Your task to perform on an android device: turn on javascript in the chrome app Image 0: 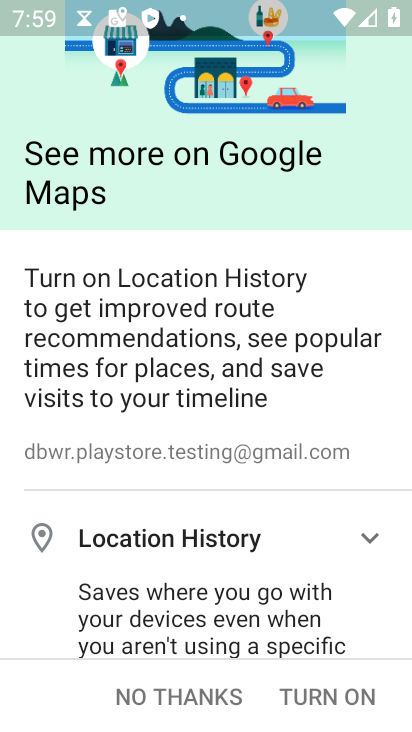
Step 0: press back button
Your task to perform on an android device: turn on javascript in the chrome app Image 1: 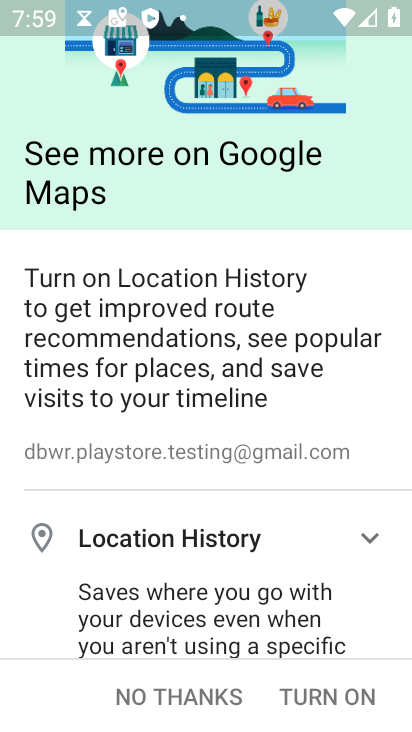
Step 1: press back button
Your task to perform on an android device: turn on javascript in the chrome app Image 2: 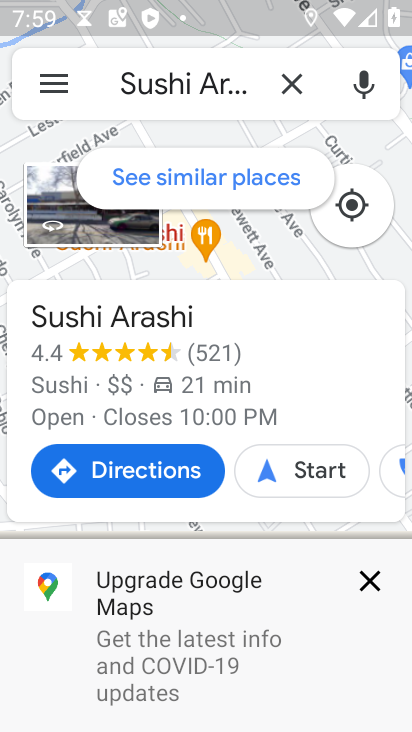
Step 2: press back button
Your task to perform on an android device: turn on javascript in the chrome app Image 3: 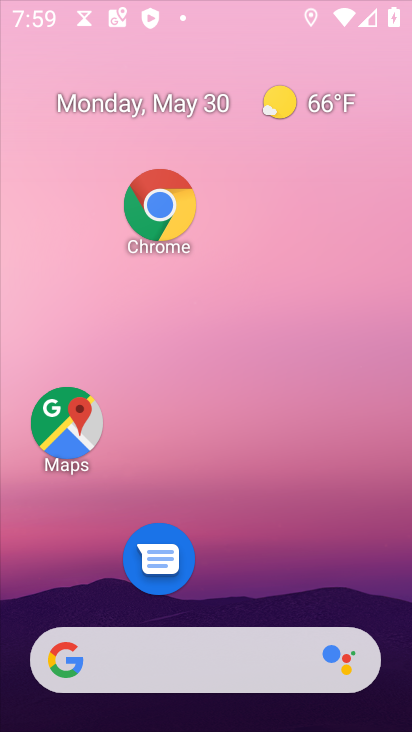
Step 3: press home button
Your task to perform on an android device: turn on javascript in the chrome app Image 4: 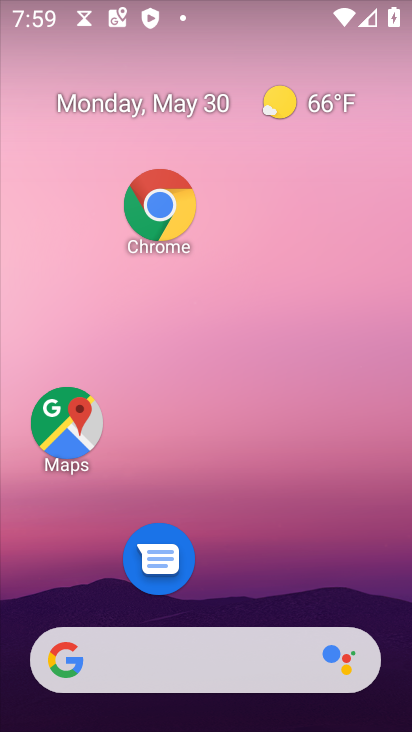
Step 4: press home button
Your task to perform on an android device: turn on javascript in the chrome app Image 5: 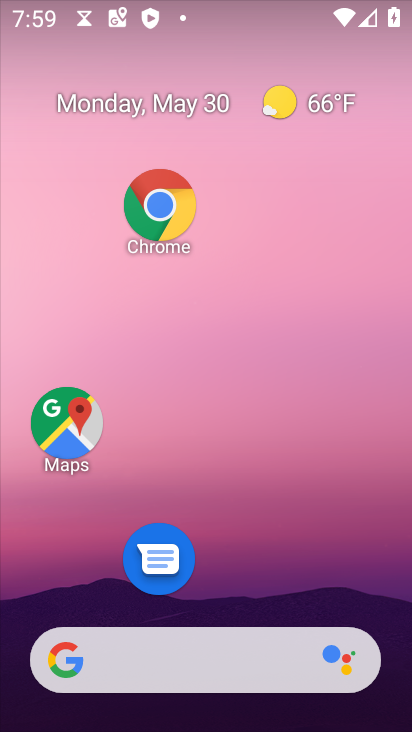
Step 5: click (164, 68)
Your task to perform on an android device: turn on javascript in the chrome app Image 6: 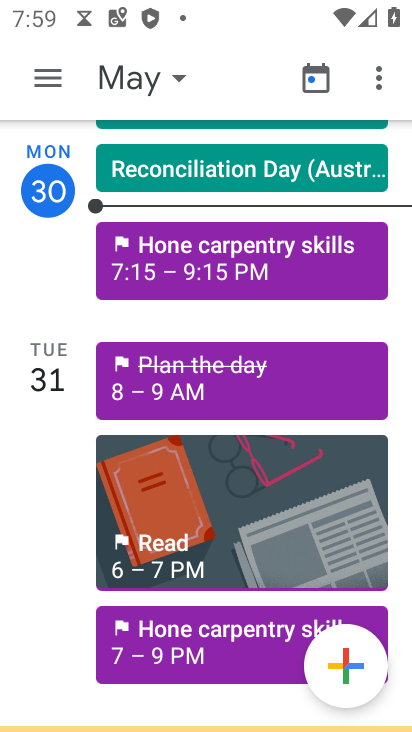
Step 6: press back button
Your task to perform on an android device: turn on javascript in the chrome app Image 7: 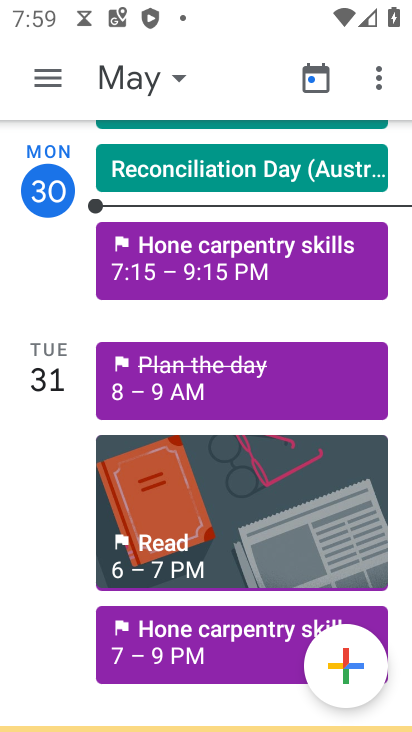
Step 7: press back button
Your task to perform on an android device: turn on javascript in the chrome app Image 8: 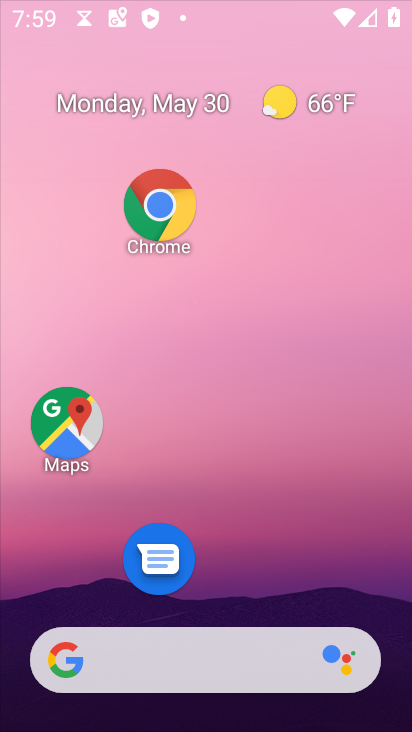
Step 8: press back button
Your task to perform on an android device: turn on javascript in the chrome app Image 9: 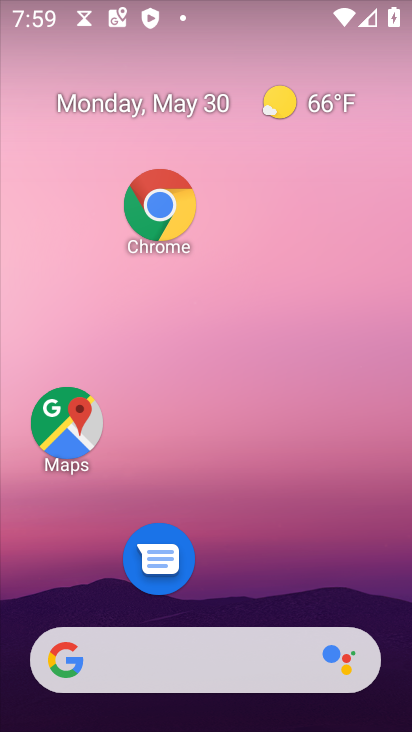
Step 9: drag from (288, 703) to (206, 119)
Your task to perform on an android device: turn on javascript in the chrome app Image 10: 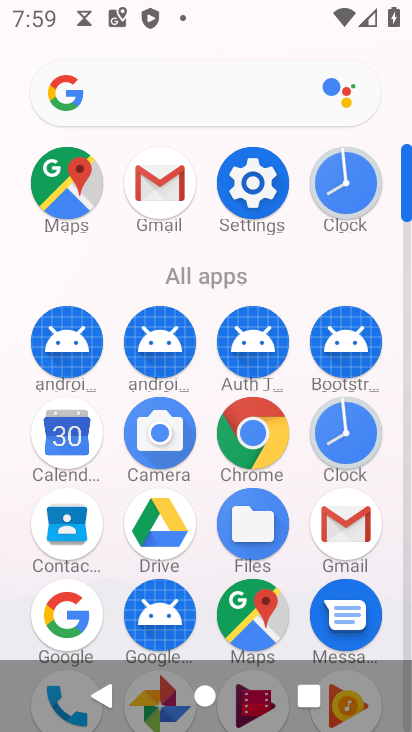
Step 10: click (255, 432)
Your task to perform on an android device: turn on javascript in the chrome app Image 11: 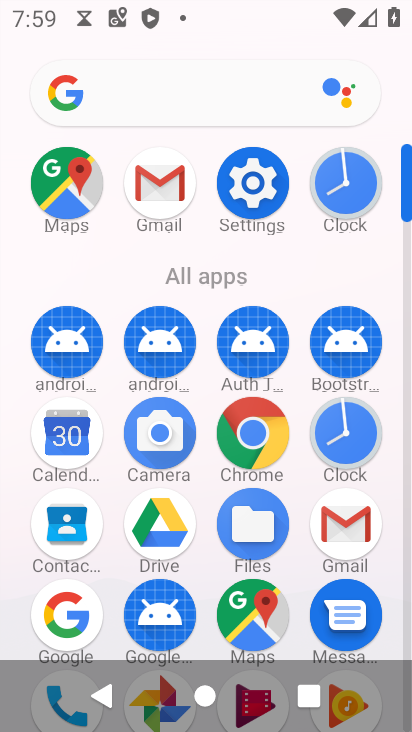
Step 11: click (255, 432)
Your task to perform on an android device: turn on javascript in the chrome app Image 12: 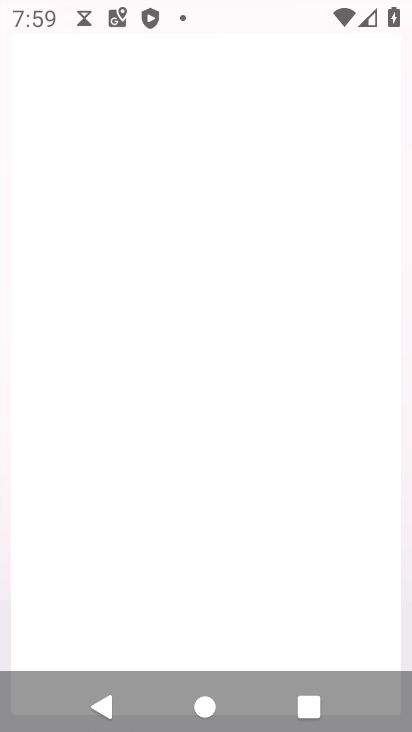
Step 12: click (254, 437)
Your task to perform on an android device: turn on javascript in the chrome app Image 13: 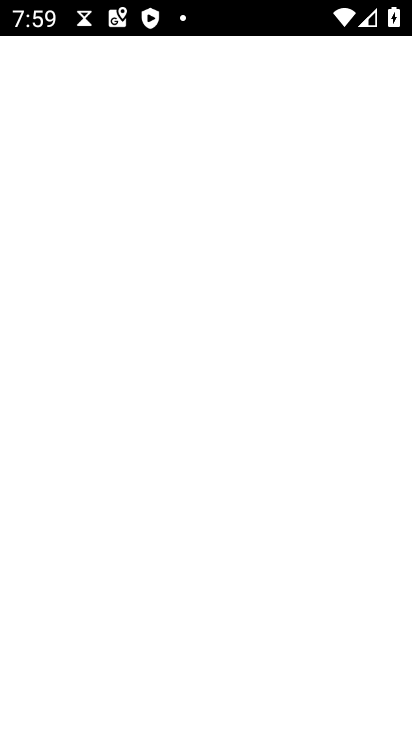
Step 13: click (254, 437)
Your task to perform on an android device: turn on javascript in the chrome app Image 14: 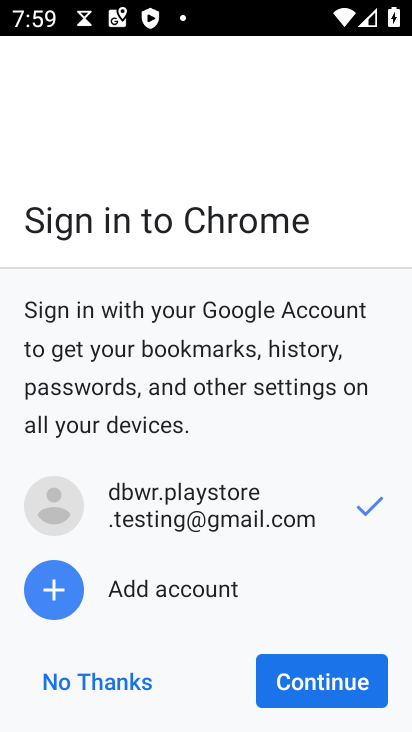
Step 14: click (333, 683)
Your task to perform on an android device: turn on javascript in the chrome app Image 15: 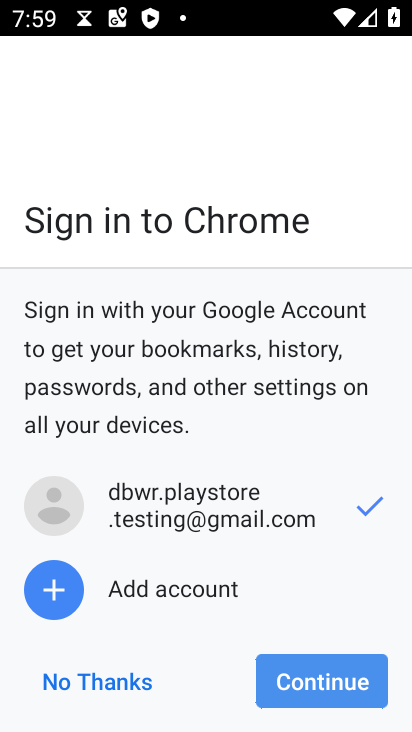
Step 15: click (333, 683)
Your task to perform on an android device: turn on javascript in the chrome app Image 16: 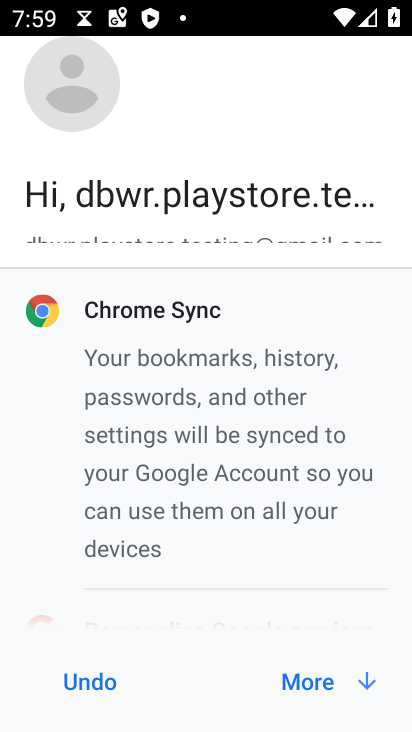
Step 16: click (343, 690)
Your task to perform on an android device: turn on javascript in the chrome app Image 17: 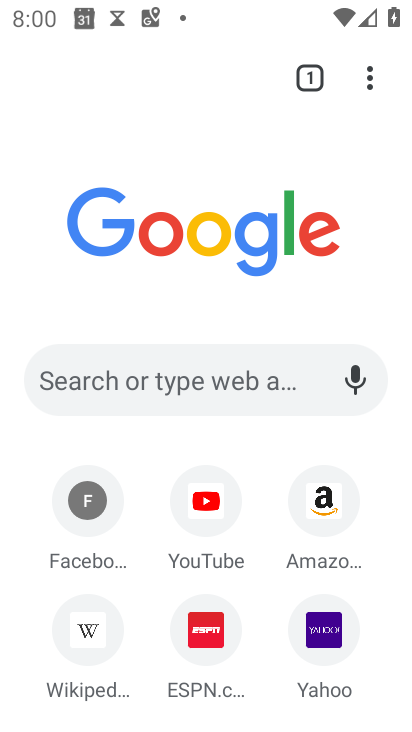
Step 17: press back button
Your task to perform on an android device: turn on javascript in the chrome app Image 18: 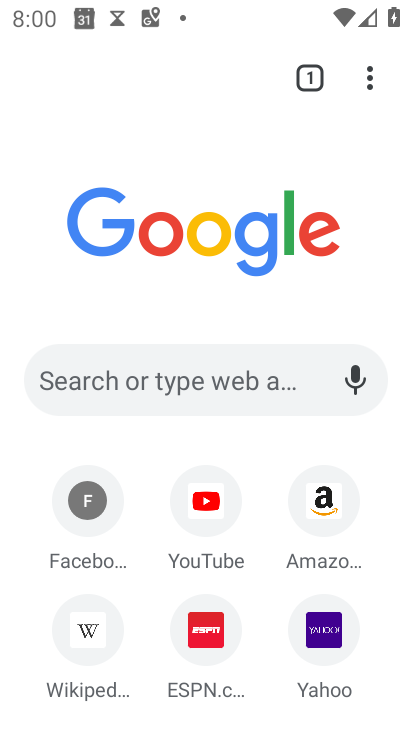
Step 18: press back button
Your task to perform on an android device: turn on javascript in the chrome app Image 19: 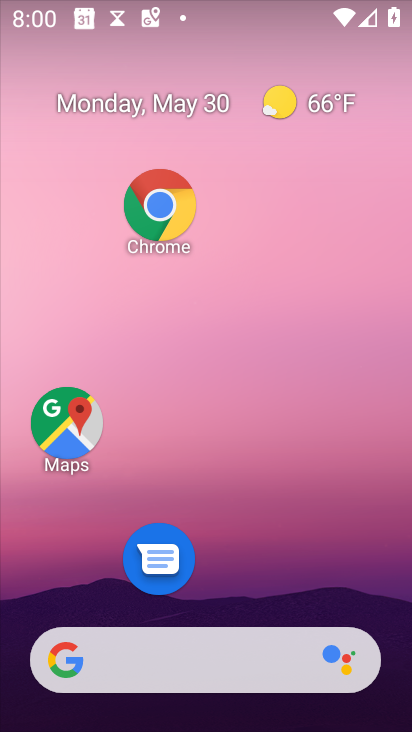
Step 19: drag from (255, 570) to (248, 158)
Your task to perform on an android device: turn on javascript in the chrome app Image 20: 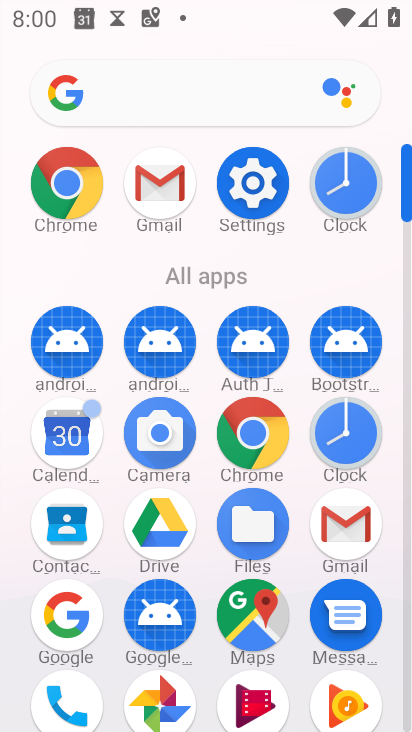
Step 20: click (242, 437)
Your task to perform on an android device: turn on javascript in the chrome app Image 21: 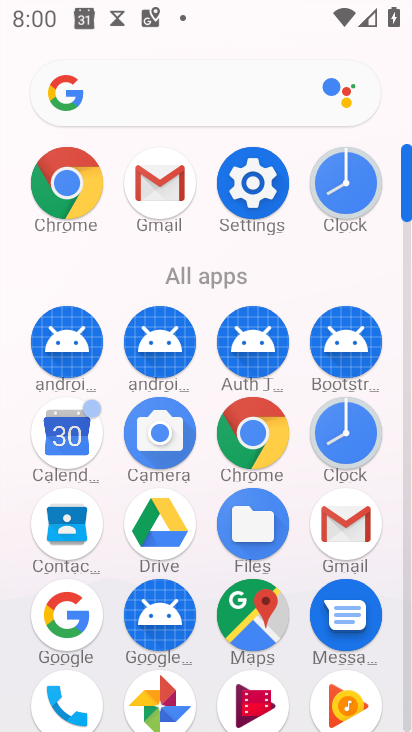
Step 21: click (251, 441)
Your task to perform on an android device: turn on javascript in the chrome app Image 22: 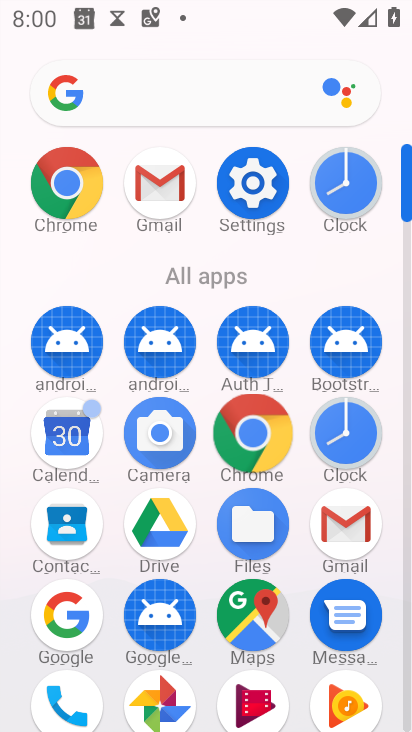
Step 22: click (251, 441)
Your task to perform on an android device: turn on javascript in the chrome app Image 23: 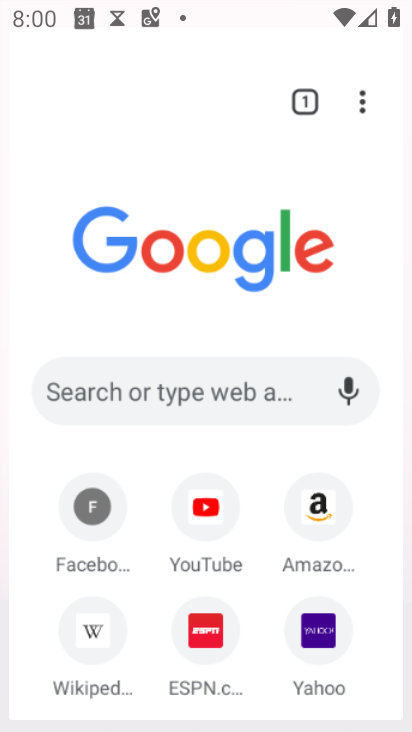
Step 23: click (251, 441)
Your task to perform on an android device: turn on javascript in the chrome app Image 24: 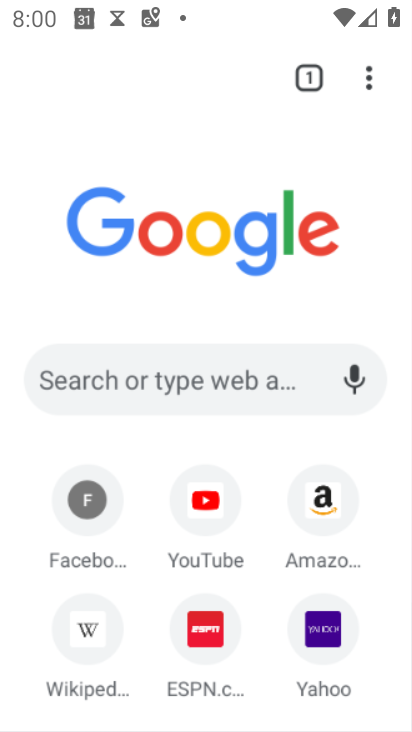
Step 24: click (251, 441)
Your task to perform on an android device: turn on javascript in the chrome app Image 25: 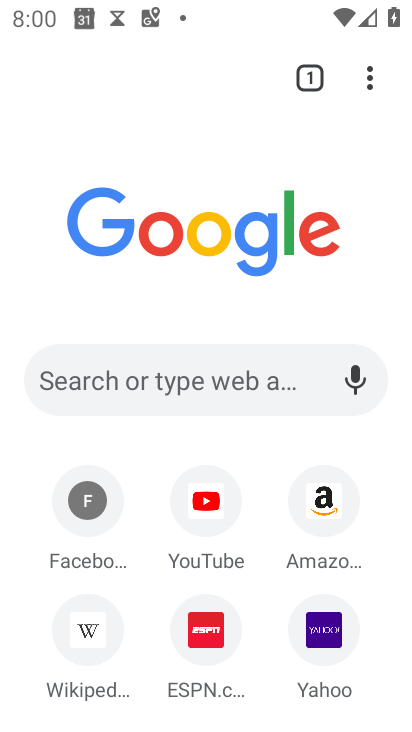
Step 25: click (370, 91)
Your task to perform on an android device: turn on javascript in the chrome app Image 26: 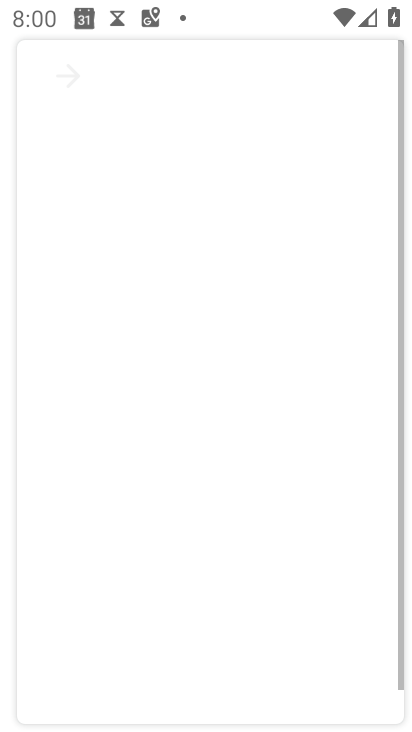
Step 26: click (371, 89)
Your task to perform on an android device: turn on javascript in the chrome app Image 27: 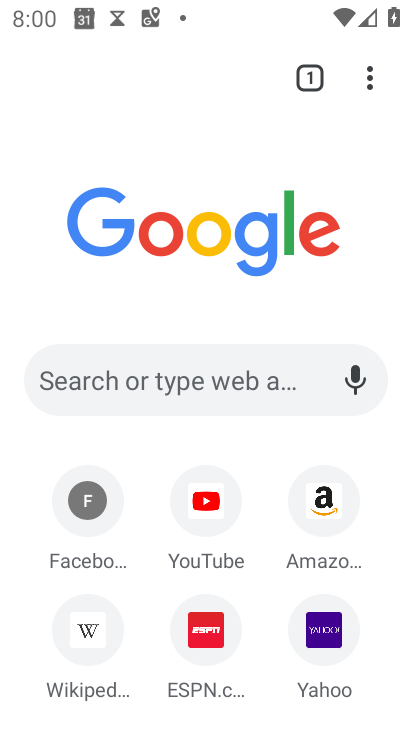
Step 27: click (372, 90)
Your task to perform on an android device: turn on javascript in the chrome app Image 28: 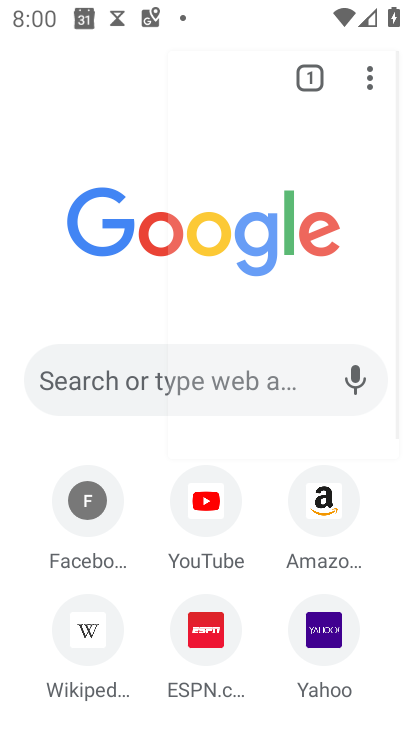
Step 28: drag from (372, 90) to (74, 614)
Your task to perform on an android device: turn on javascript in the chrome app Image 29: 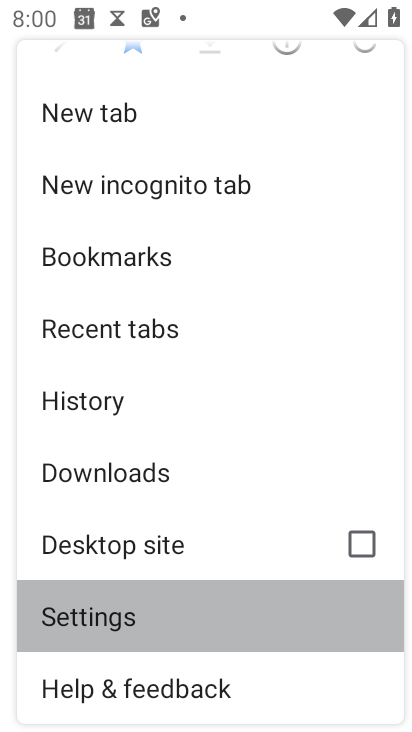
Step 29: click (74, 617)
Your task to perform on an android device: turn on javascript in the chrome app Image 30: 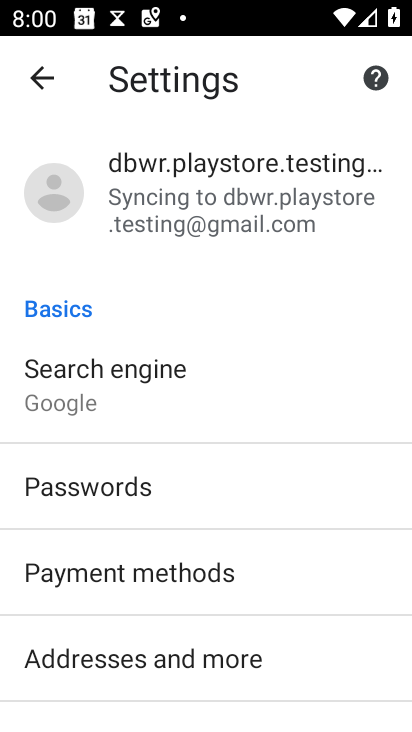
Step 30: drag from (133, 509) to (105, 189)
Your task to perform on an android device: turn on javascript in the chrome app Image 31: 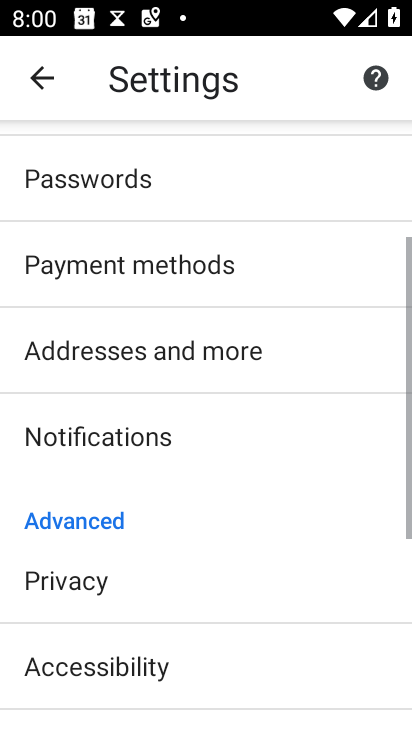
Step 31: drag from (171, 404) to (133, 129)
Your task to perform on an android device: turn on javascript in the chrome app Image 32: 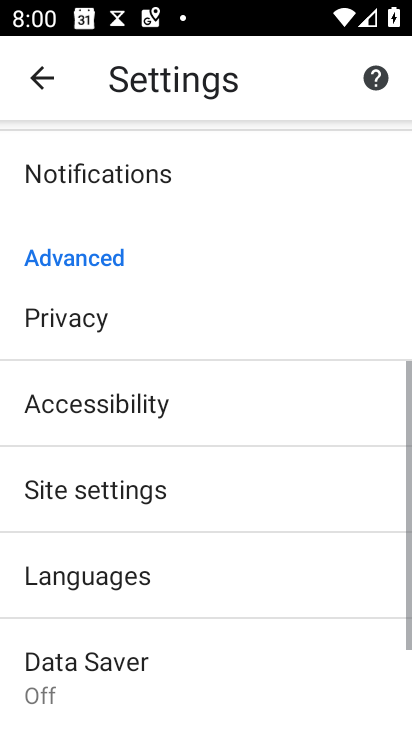
Step 32: drag from (128, 474) to (85, 216)
Your task to perform on an android device: turn on javascript in the chrome app Image 33: 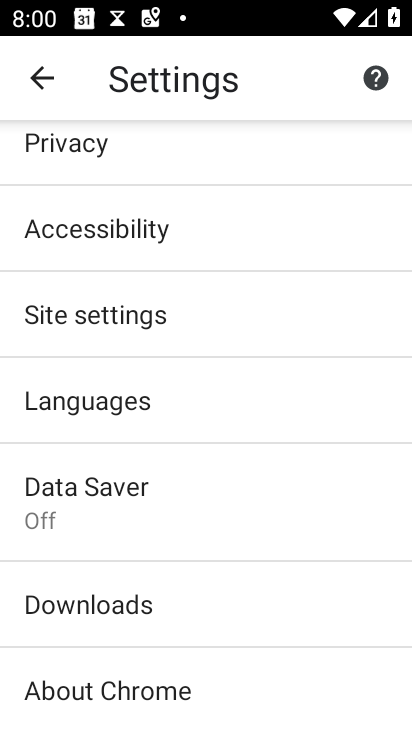
Step 33: click (73, 306)
Your task to perform on an android device: turn on javascript in the chrome app Image 34: 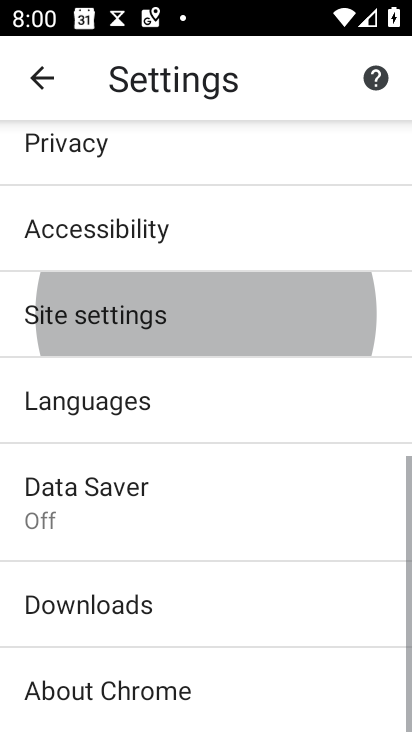
Step 34: click (72, 311)
Your task to perform on an android device: turn on javascript in the chrome app Image 35: 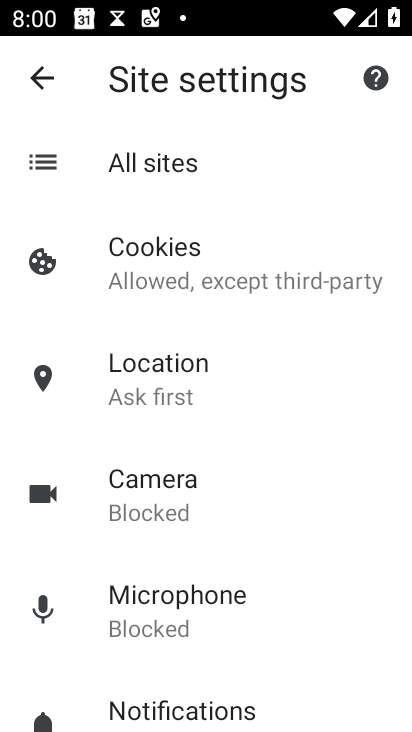
Step 35: drag from (175, 590) to (202, 199)
Your task to perform on an android device: turn on javascript in the chrome app Image 36: 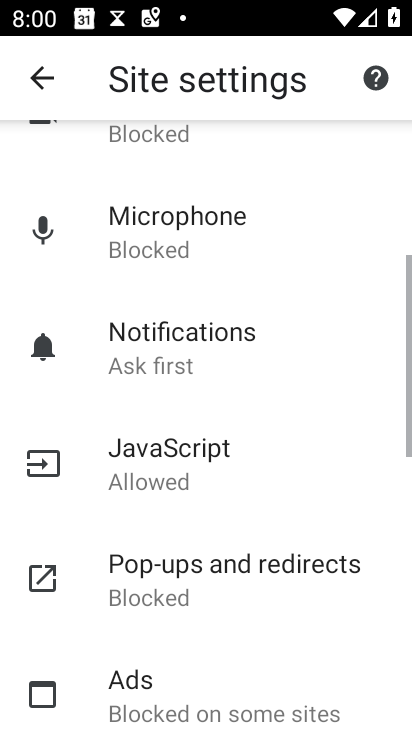
Step 36: drag from (266, 394) to (231, 95)
Your task to perform on an android device: turn on javascript in the chrome app Image 37: 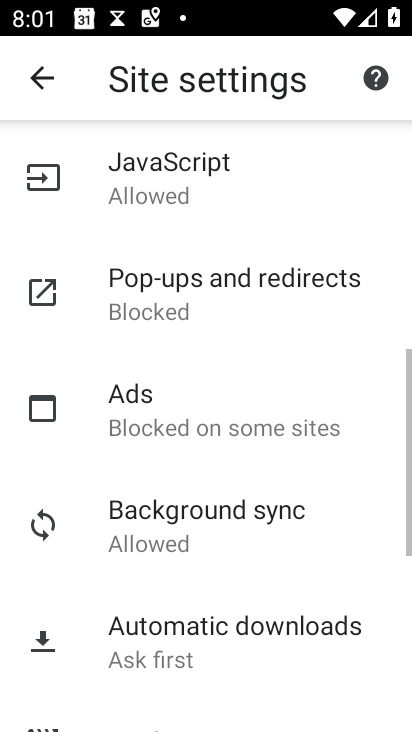
Step 37: click (154, 190)
Your task to perform on an android device: turn on javascript in the chrome app Image 38: 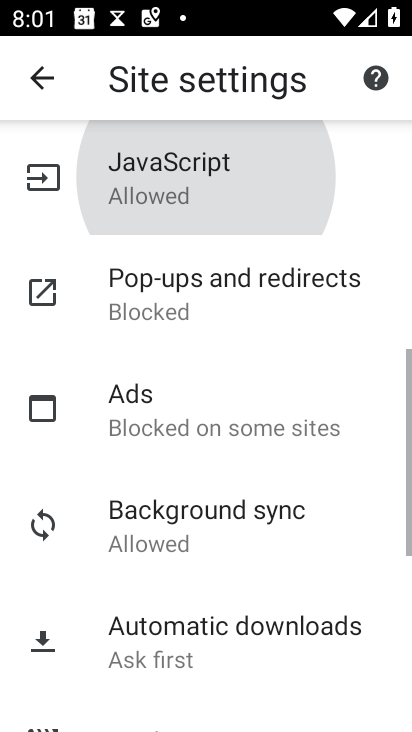
Step 38: click (154, 190)
Your task to perform on an android device: turn on javascript in the chrome app Image 39: 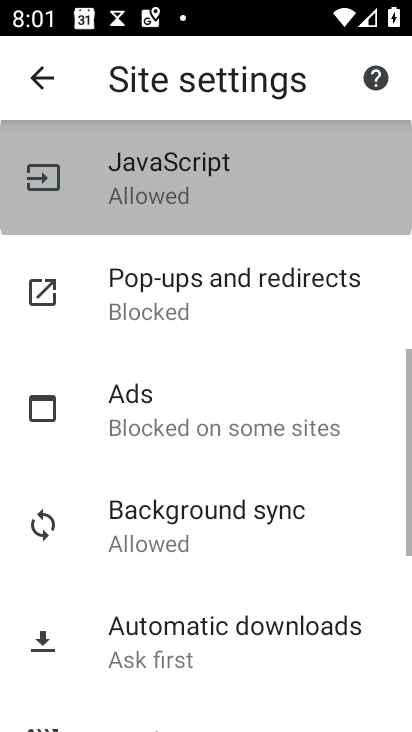
Step 39: click (154, 190)
Your task to perform on an android device: turn on javascript in the chrome app Image 40: 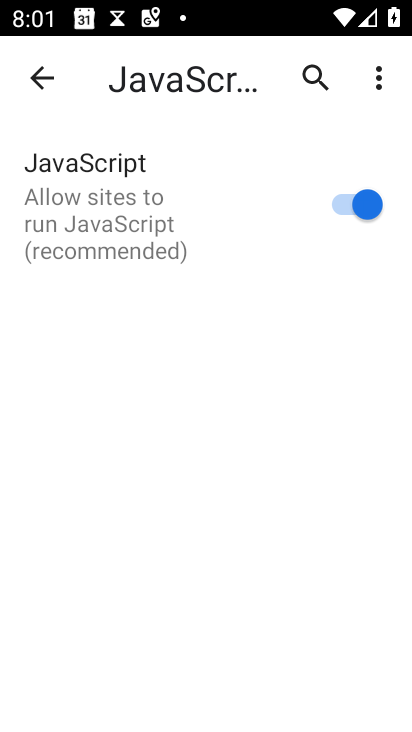
Step 40: click (154, 190)
Your task to perform on an android device: turn on javascript in the chrome app Image 41: 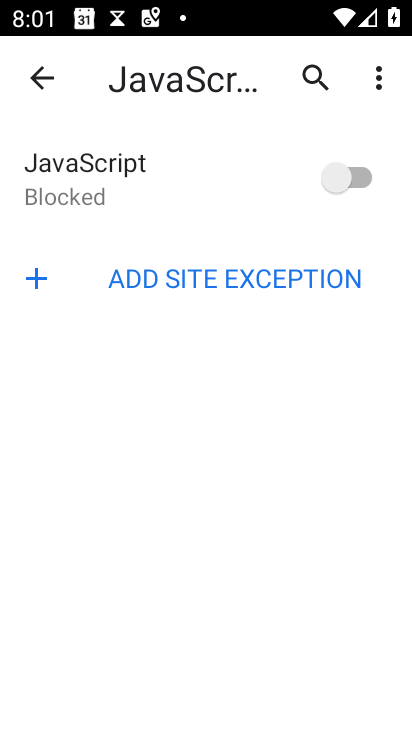
Step 41: task complete